Your task to perform on an android device: uninstall "DoorDash - Dasher" Image 0: 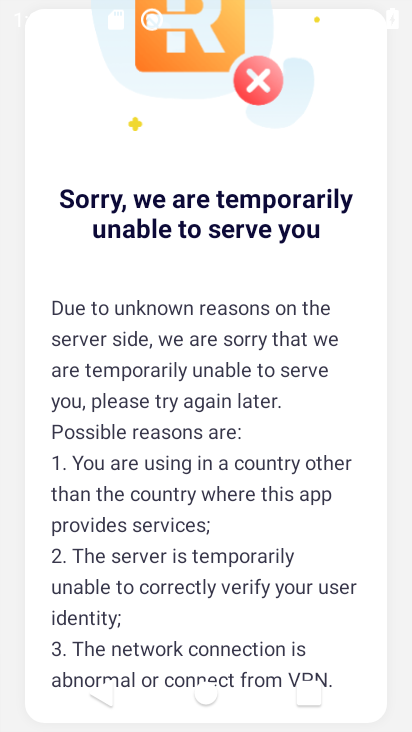
Step 0: press home button
Your task to perform on an android device: uninstall "DoorDash - Dasher" Image 1: 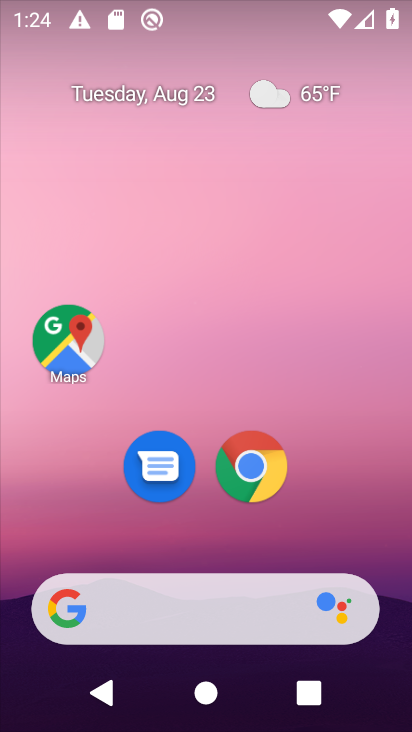
Step 1: drag from (216, 585) to (236, 85)
Your task to perform on an android device: uninstall "DoorDash - Dasher" Image 2: 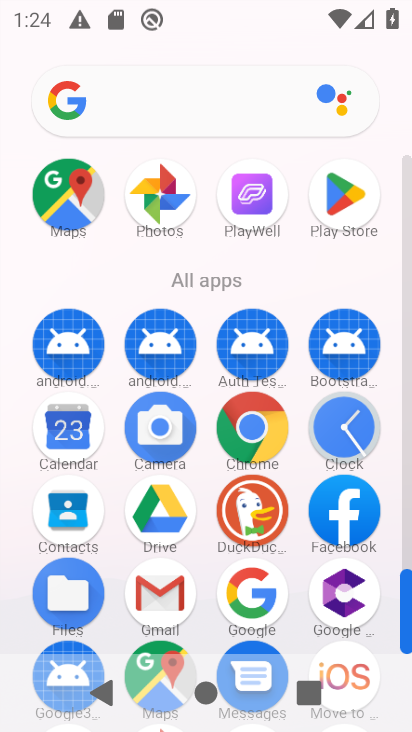
Step 2: click (338, 184)
Your task to perform on an android device: uninstall "DoorDash - Dasher" Image 3: 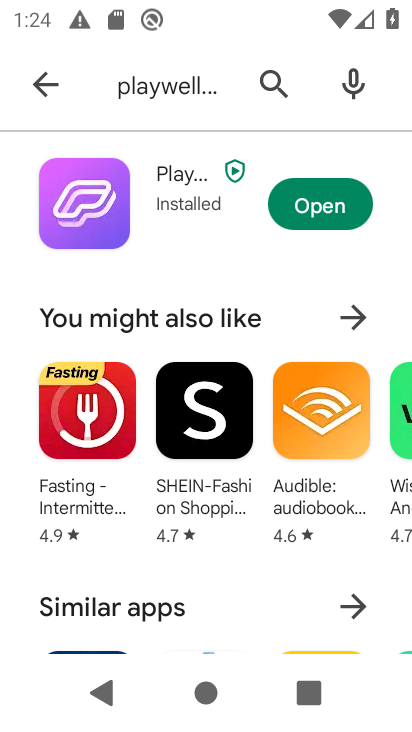
Step 3: click (62, 81)
Your task to perform on an android device: uninstall "DoorDash - Dasher" Image 4: 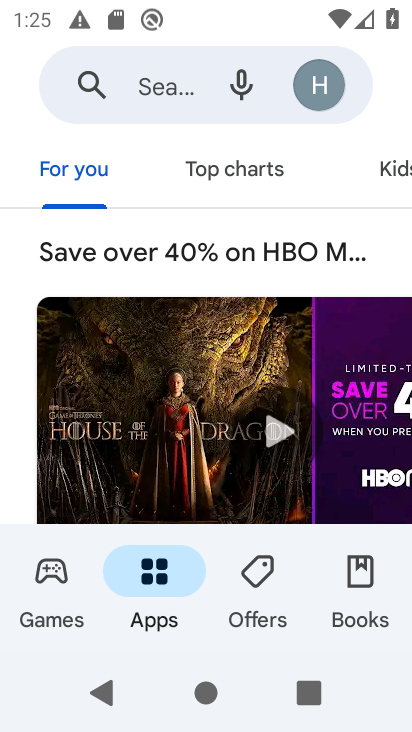
Step 4: click (156, 86)
Your task to perform on an android device: uninstall "DoorDash - Dasher" Image 5: 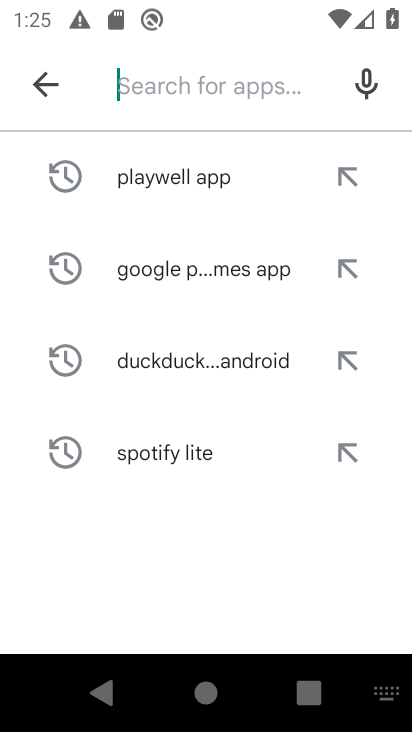
Step 5: type "DoorDash - Dasher "
Your task to perform on an android device: uninstall "DoorDash - Dasher" Image 6: 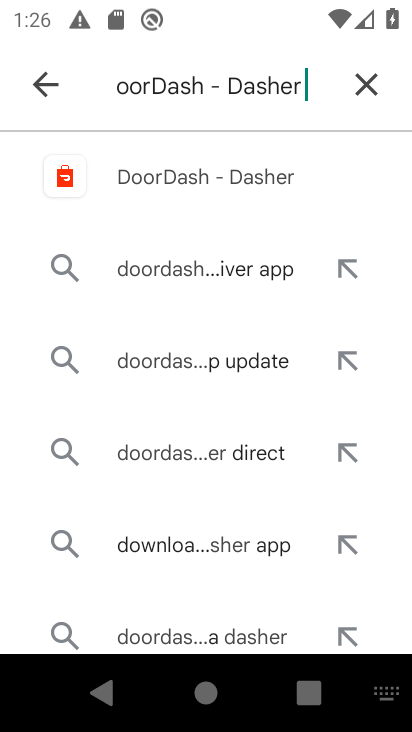
Step 6: click (218, 188)
Your task to perform on an android device: uninstall "DoorDash - Dasher" Image 7: 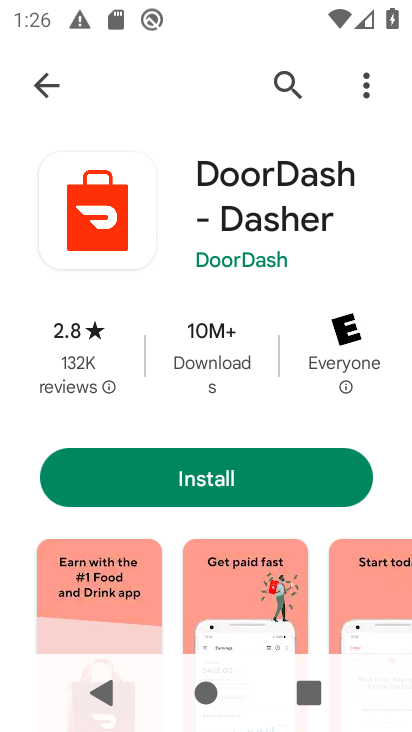
Step 7: task complete